Your task to perform on an android device: Clear all items from cart on newegg. Search for "lenovo thinkpad" on newegg, select the first entry, and add it to the cart. Image 0: 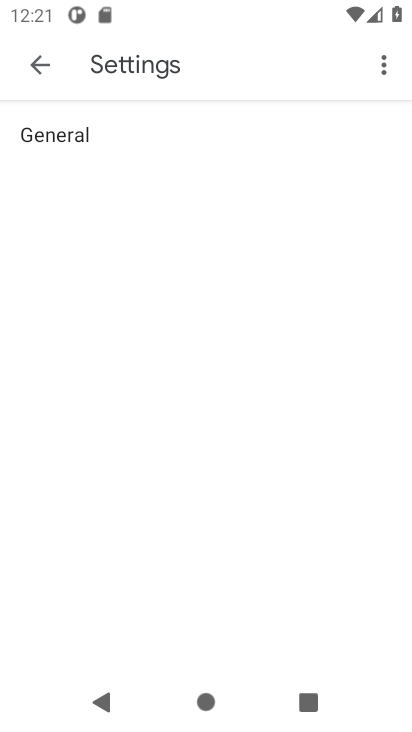
Step 0: press home button
Your task to perform on an android device: Clear all items from cart on newegg. Search for "lenovo thinkpad" on newegg, select the first entry, and add it to the cart. Image 1: 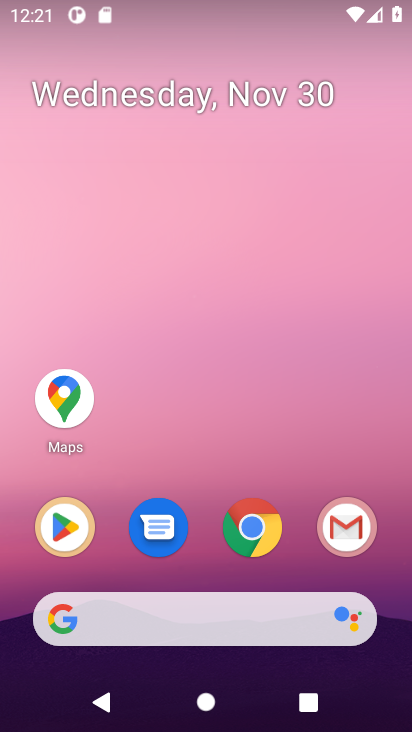
Step 1: click (247, 612)
Your task to perform on an android device: Clear all items from cart on newegg. Search for "lenovo thinkpad" on newegg, select the first entry, and add it to the cart. Image 2: 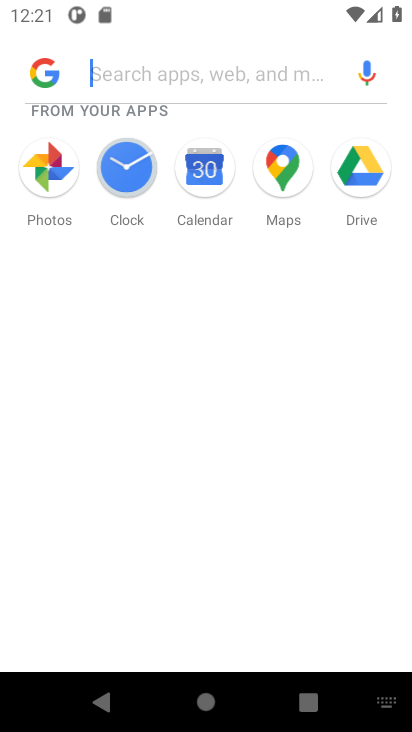
Step 2: type "newegg"
Your task to perform on an android device: Clear all items from cart on newegg. Search for "lenovo thinkpad" on newegg, select the first entry, and add it to the cart. Image 3: 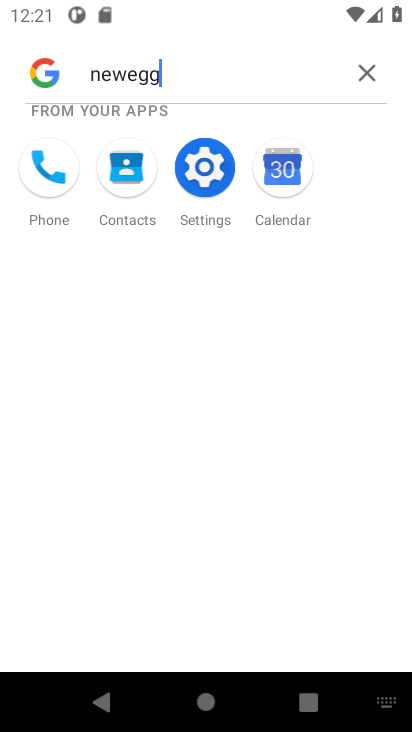
Step 3: press home button
Your task to perform on an android device: Clear all items from cart on newegg. Search for "lenovo thinkpad" on newegg, select the first entry, and add it to the cart. Image 4: 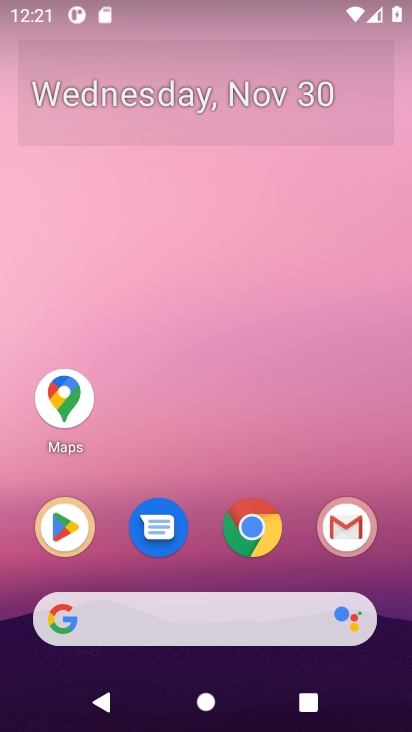
Step 4: click (259, 549)
Your task to perform on an android device: Clear all items from cart on newegg. Search for "lenovo thinkpad" on newegg, select the first entry, and add it to the cart. Image 5: 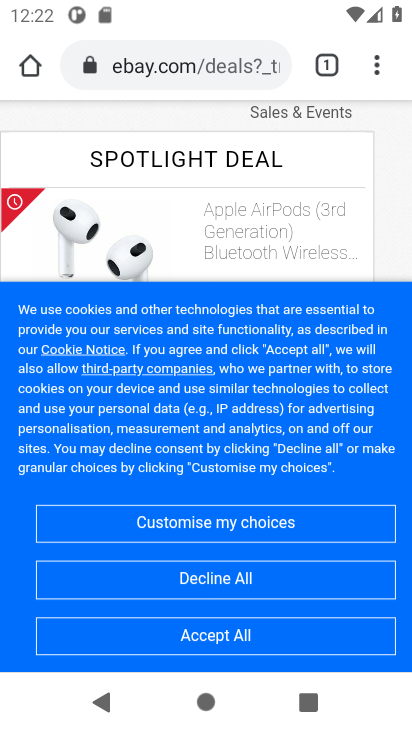
Step 5: click (240, 627)
Your task to perform on an android device: Clear all items from cart on newegg. Search for "lenovo thinkpad" on newegg, select the first entry, and add it to the cart. Image 6: 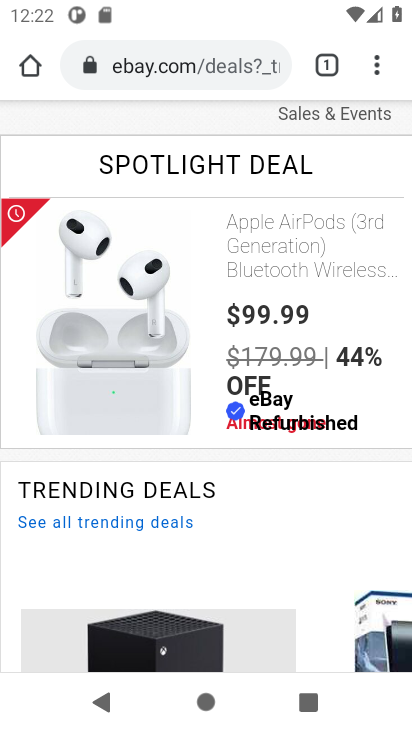
Step 6: click (166, 82)
Your task to perform on an android device: Clear all items from cart on newegg. Search for "lenovo thinkpad" on newegg, select the first entry, and add it to the cart. Image 7: 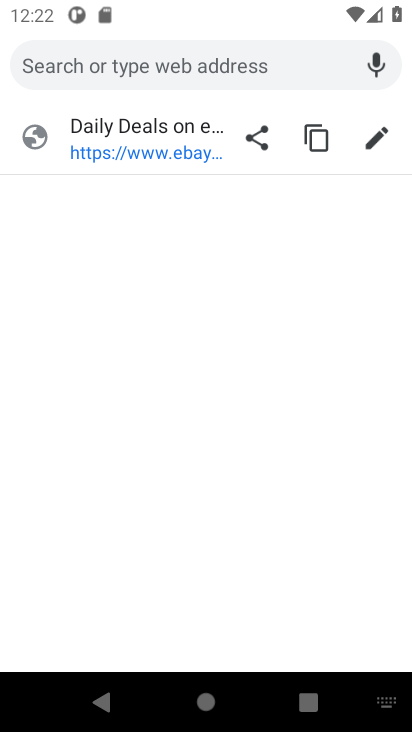
Step 7: type "newegg"
Your task to perform on an android device: Clear all items from cart on newegg. Search for "lenovo thinkpad" on newegg, select the first entry, and add it to the cart. Image 8: 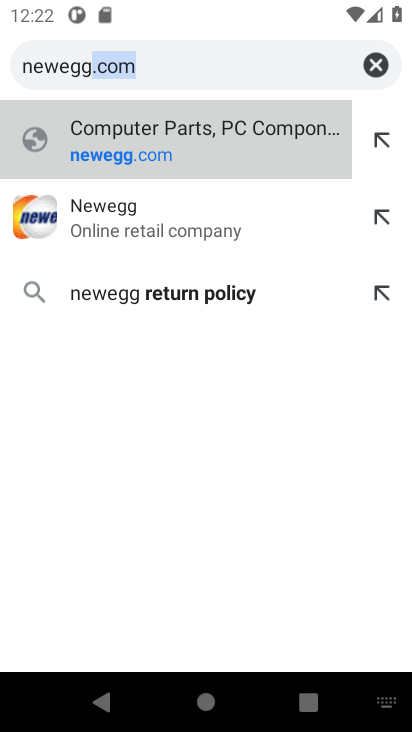
Step 8: click (179, 208)
Your task to perform on an android device: Clear all items from cart on newegg. Search for "lenovo thinkpad" on newegg, select the first entry, and add it to the cart. Image 9: 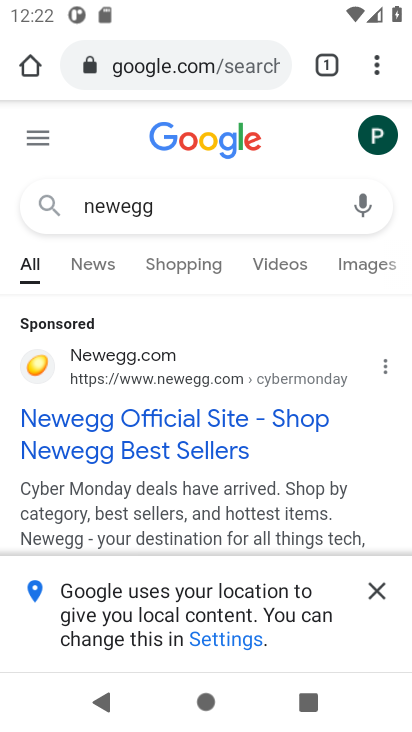
Step 9: click (198, 459)
Your task to perform on an android device: Clear all items from cart on newegg. Search for "lenovo thinkpad" on newegg, select the first entry, and add it to the cart. Image 10: 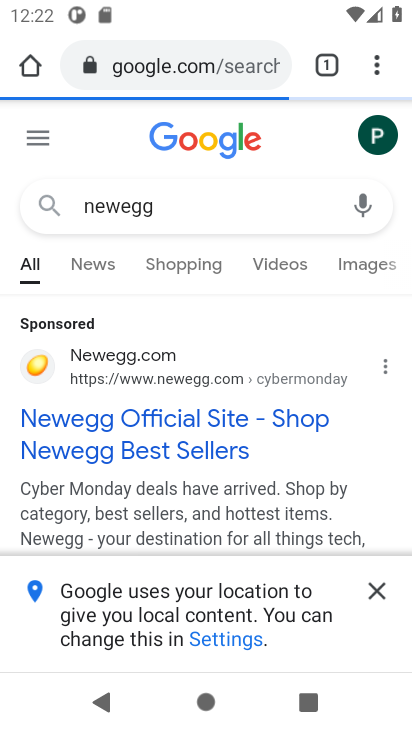
Step 10: click (189, 453)
Your task to perform on an android device: Clear all items from cart on newegg. Search for "lenovo thinkpad" on newegg, select the first entry, and add it to the cart. Image 11: 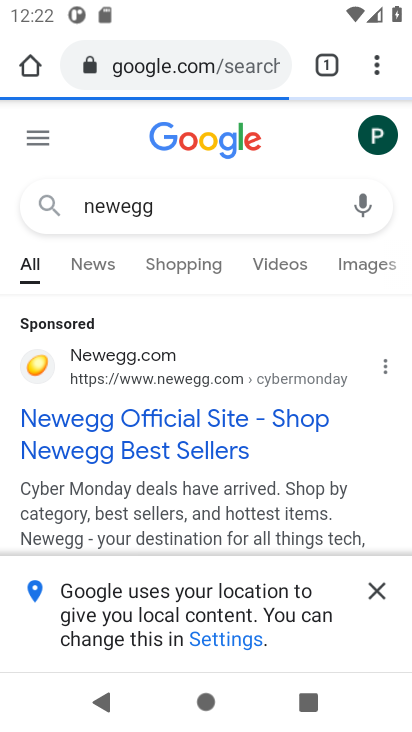
Step 11: click (189, 453)
Your task to perform on an android device: Clear all items from cart on newegg. Search for "lenovo thinkpad" on newegg, select the first entry, and add it to the cart. Image 12: 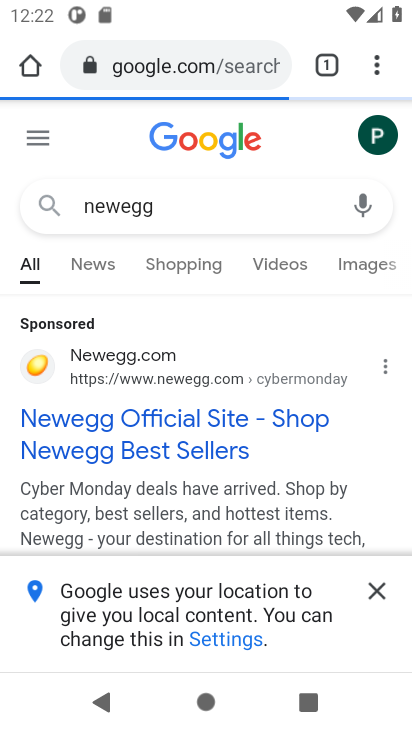
Step 12: task complete